Your task to perform on an android device: turn on airplane mode Image 0: 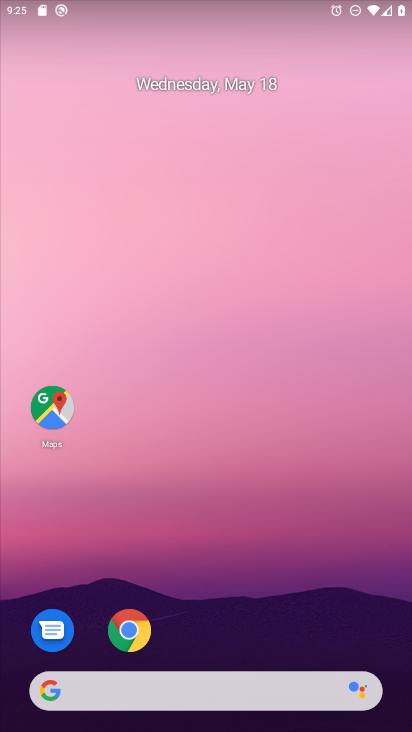
Step 0: drag from (211, 658) to (142, 19)
Your task to perform on an android device: turn on airplane mode Image 1: 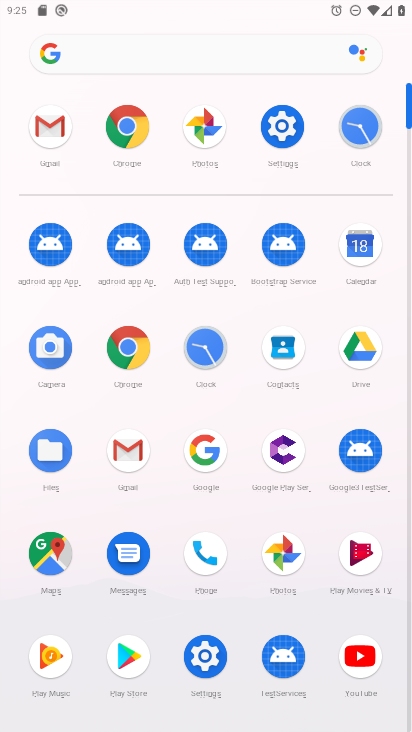
Step 1: click (275, 142)
Your task to perform on an android device: turn on airplane mode Image 2: 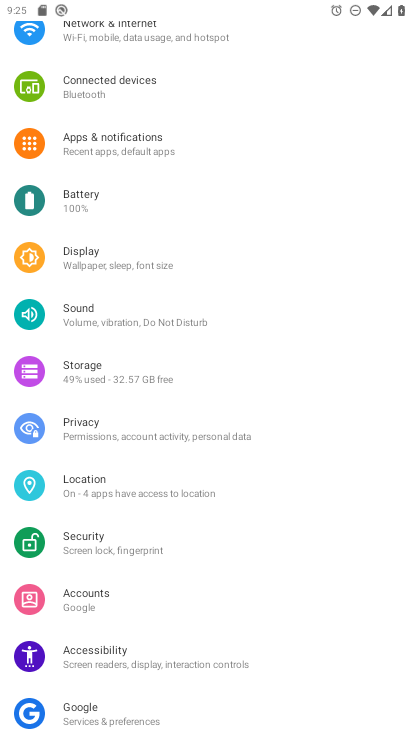
Step 2: drag from (193, 165) to (216, 606)
Your task to perform on an android device: turn on airplane mode Image 3: 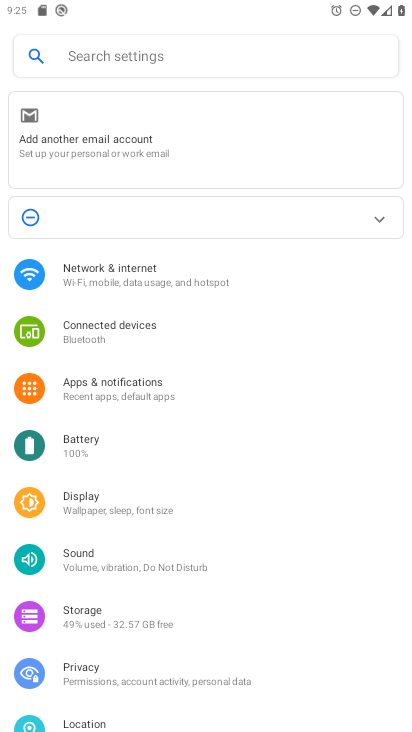
Step 3: click (151, 263)
Your task to perform on an android device: turn on airplane mode Image 4: 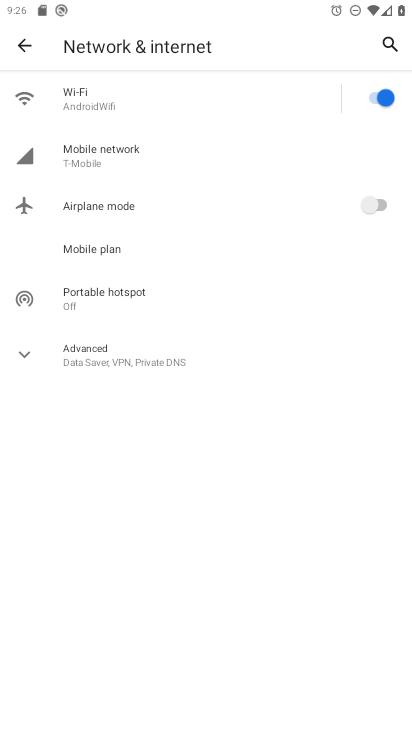
Step 4: click (379, 206)
Your task to perform on an android device: turn on airplane mode Image 5: 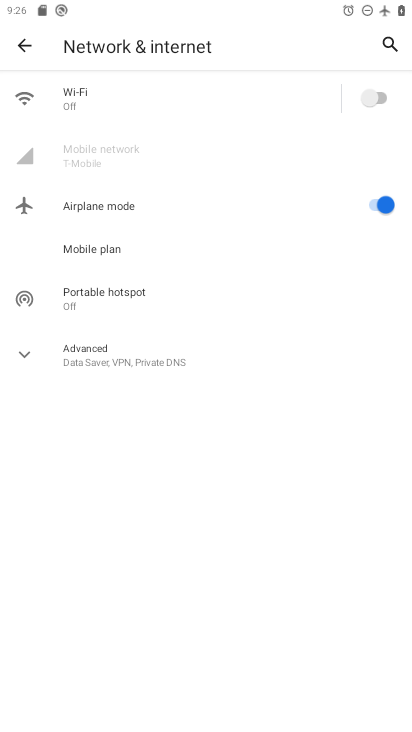
Step 5: task complete